Your task to perform on an android device: Open Chrome and go to the settings page Image 0: 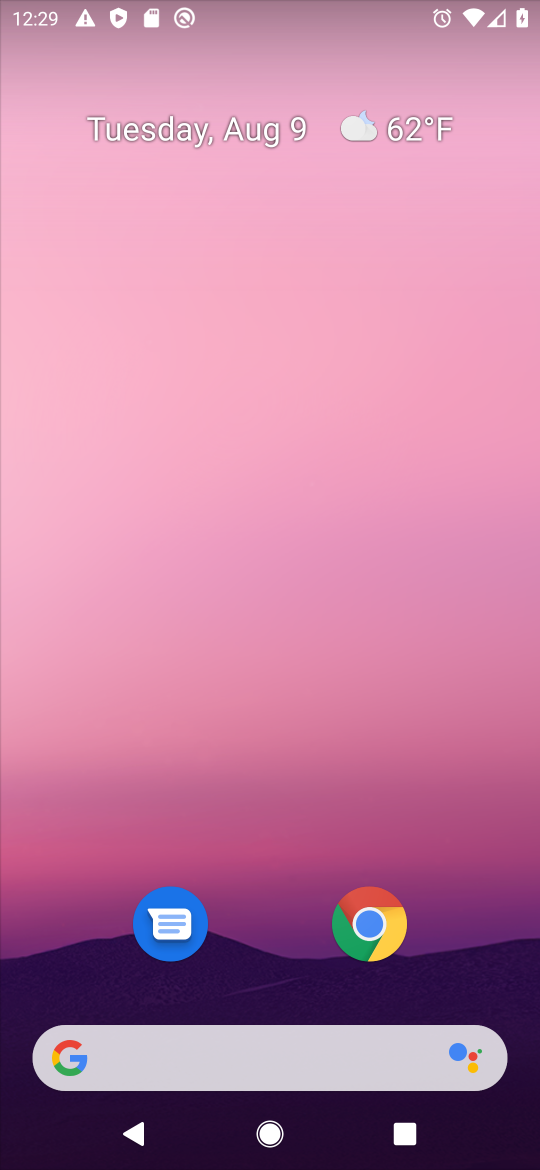
Step 0: drag from (312, 976) to (333, 48)
Your task to perform on an android device: Open Chrome and go to the settings page Image 1: 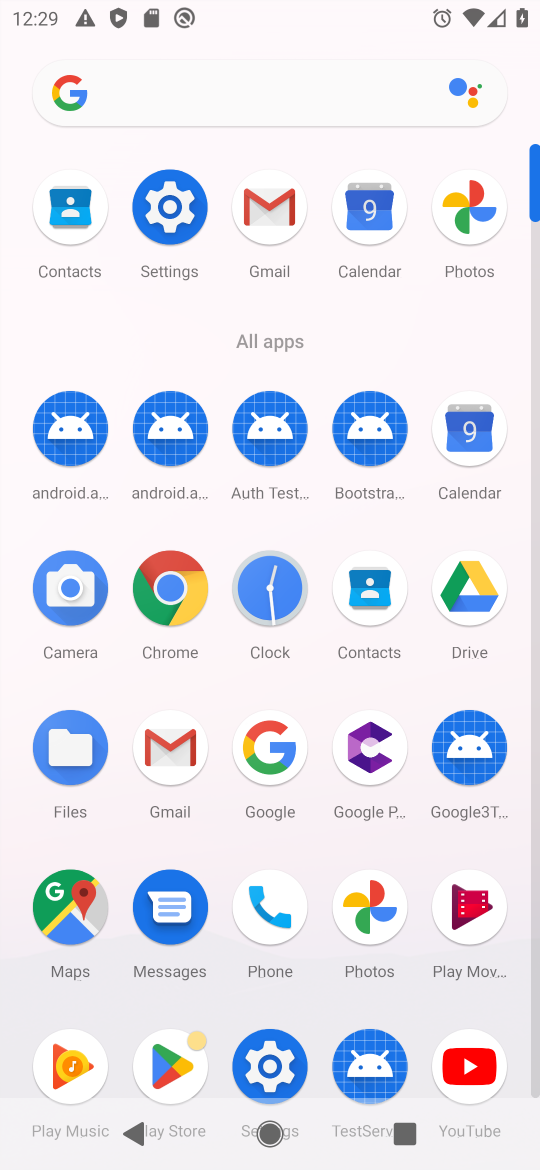
Step 1: click (173, 198)
Your task to perform on an android device: Open Chrome and go to the settings page Image 2: 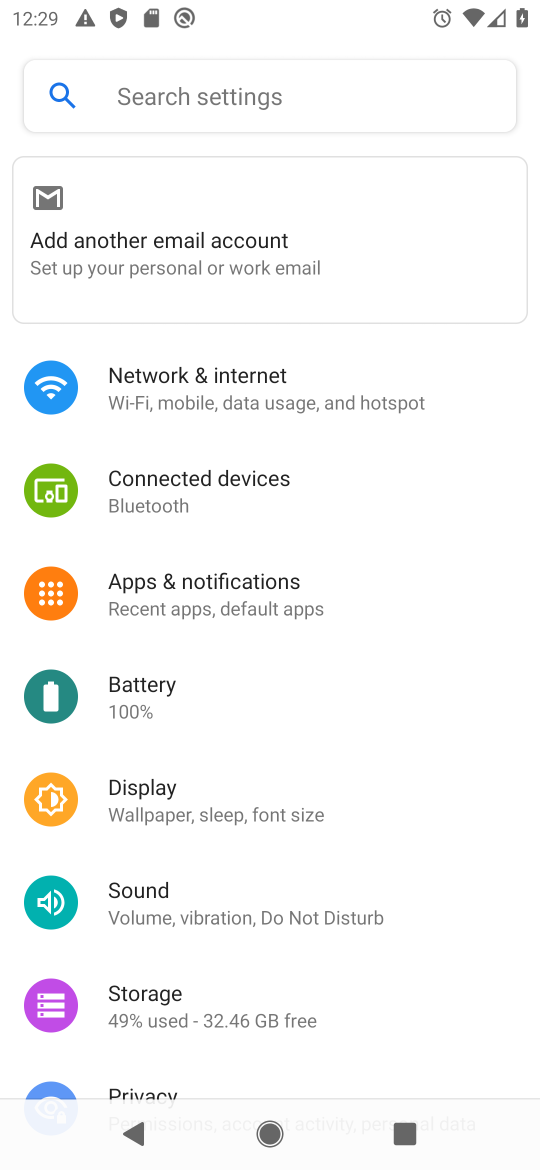
Step 2: task complete